Your task to perform on an android device: open app "AliExpress" (install if not already installed) and go to login screen Image 0: 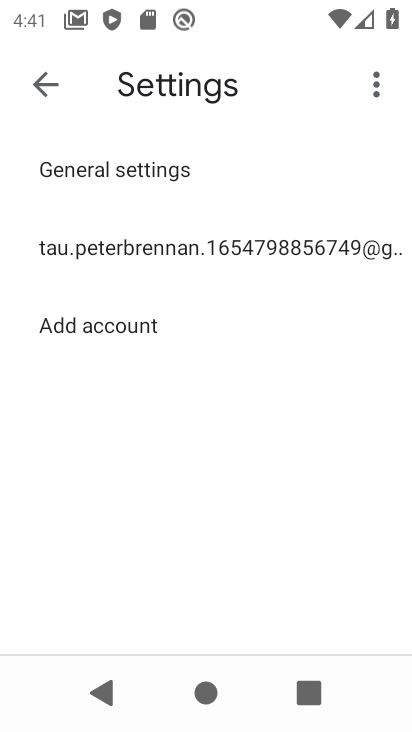
Step 0: press home button
Your task to perform on an android device: open app "AliExpress" (install if not already installed) and go to login screen Image 1: 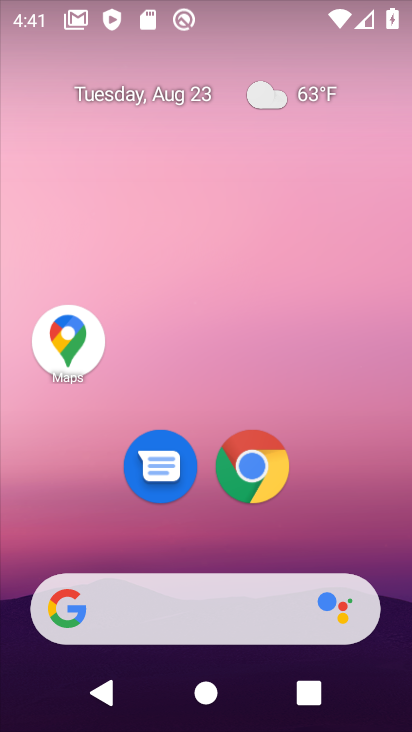
Step 1: drag from (190, 549) to (211, 6)
Your task to perform on an android device: open app "AliExpress" (install if not already installed) and go to login screen Image 2: 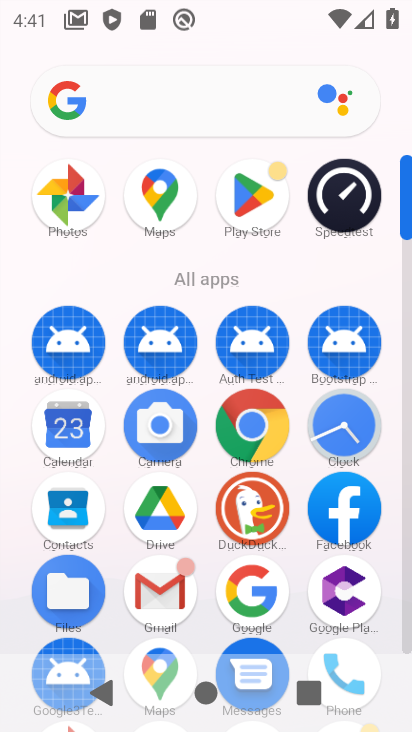
Step 2: click (256, 201)
Your task to perform on an android device: open app "AliExpress" (install if not already installed) and go to login screen Image 3: 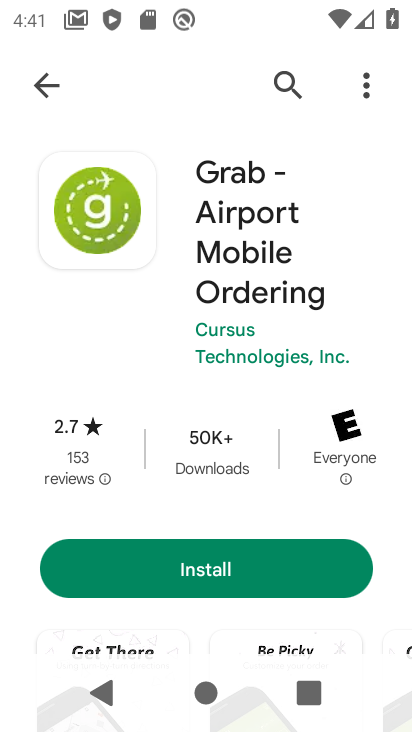
Step 3: click (39, 83)
Your task to perform on an android device: open app "AliExpress" (install if not already installed) and go to login screen Image 4: 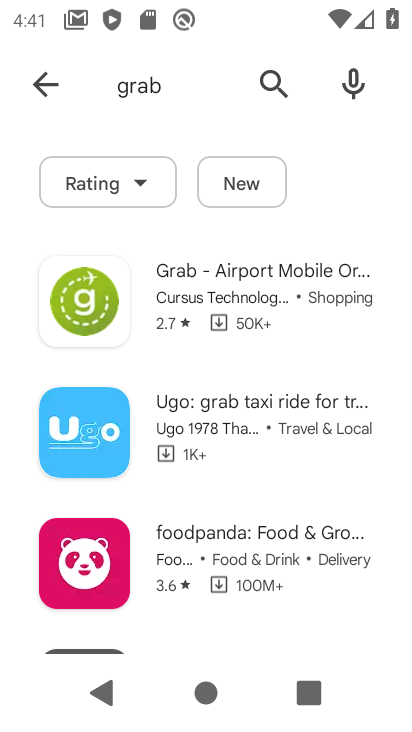
Step 4: click (152, 91)
Your task to perform on an android device: open app "AliExpress" (install if not already installed) and go to login screen Image 5: 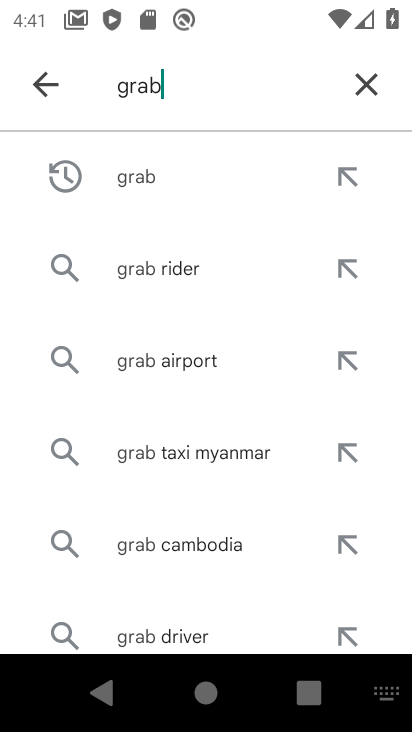
Step 5: click (372, 85)
Your task to perform on an android device: open app "AliExpress" (install if not already installed) and go to login screen Image 6: 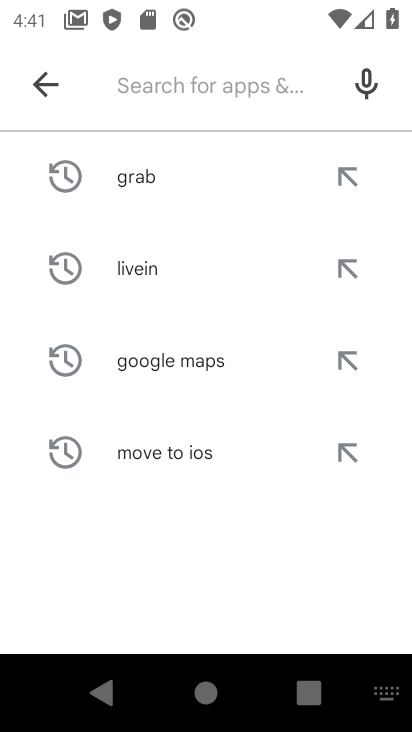
Step 6: type "AliExpress"
Your task to perform on an android device: open app "AliExpress" (install if not already installed) and go to login screen Image 7: 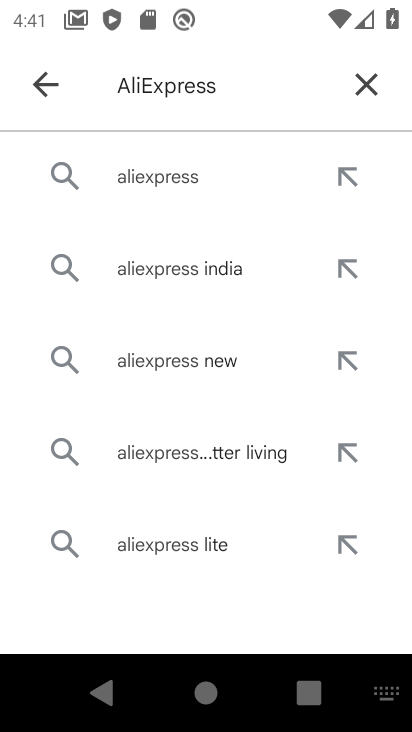
Step 7: click (183, 172)
Your task to perform on an android device: open app "AliExpress" (install if not already installed) and go to login screen Image 8: 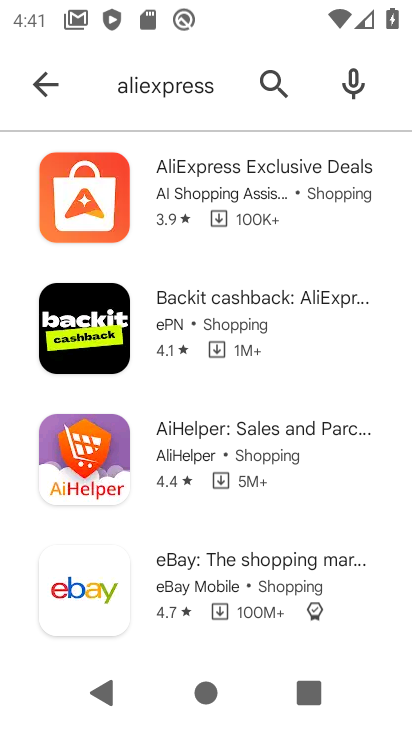
Step 8: click (259, 180)
Your task to perform on an android device: open app "AliExpress" (install if not already installed) and go to login screen Image 9: 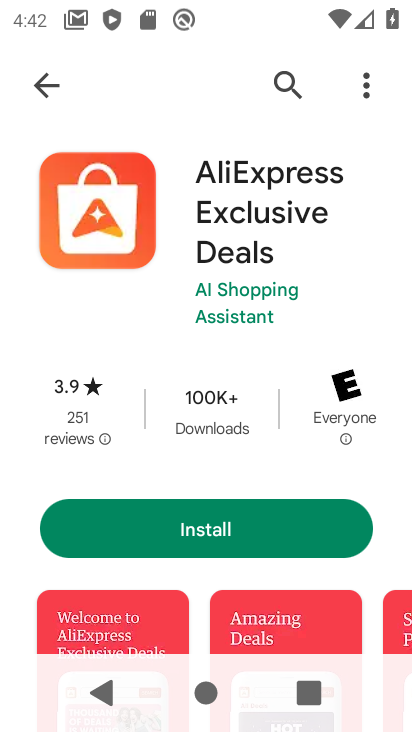
Step 9: click (213, 519)
Your task to perform on an android device: open app "AliExpress" (install if not already installed) and go to login screen Image 10: 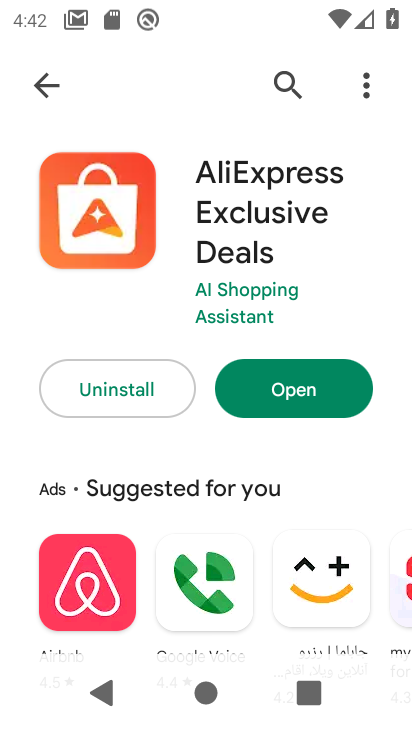
Step 10: click (327, 401)
Your task to perform on an android device: open app "AliExpress" (install if not already installed) and go to login screen Image 11: 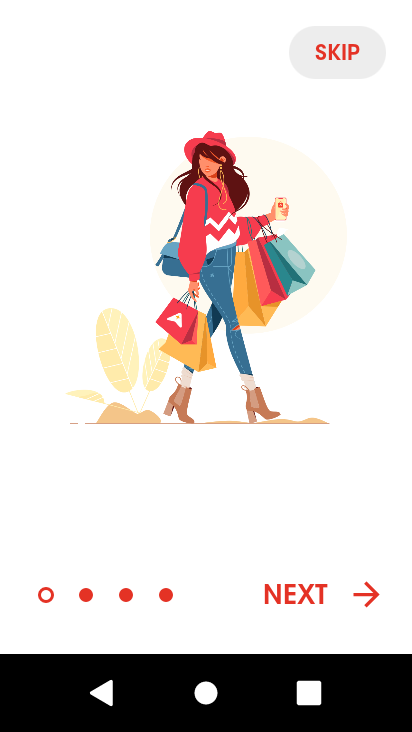
Step 11: click (303, 589)
Your task to perform on an android device: open app "AliExpress" (install if not already installed) and go to login screen Image 12: 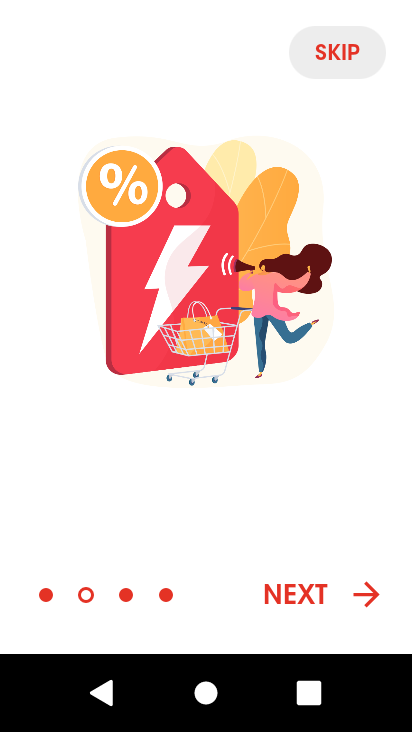
Step 12: click (303, 589)
Your task to perform on an android device: open app "AliExpress" (install if not already installed) and go to login screen Image 13: 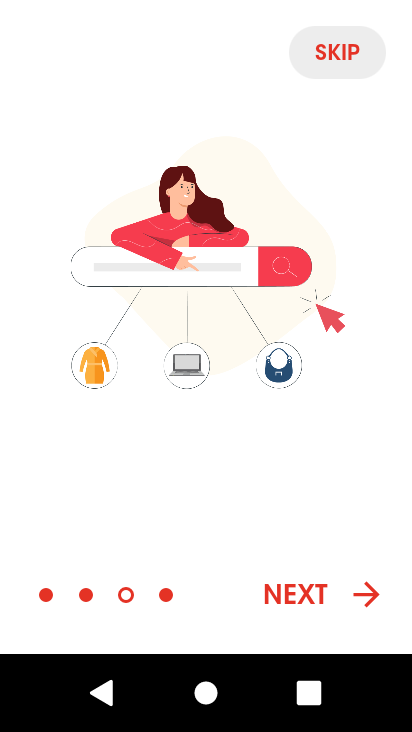
Step 13: click (303, 589)
Your task to perform on an android device: open app "AliExpress" (install if not already installed) and go to login screen Image 14: 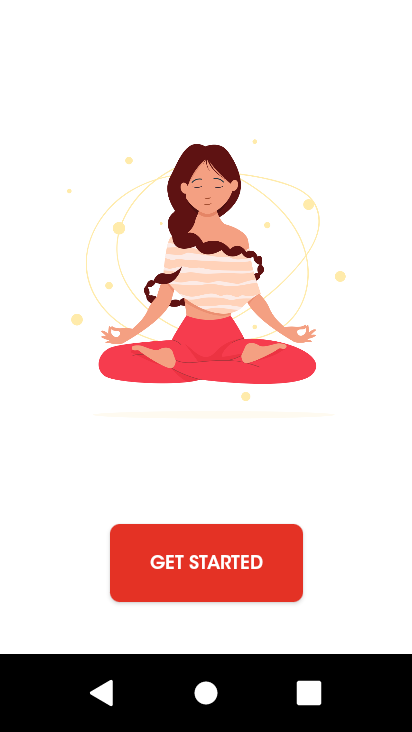
Step 14: click (301, 588)
Your task to perform on an android device: open app "AliExpress" (install if not already installed) and go to login screen Image 15: 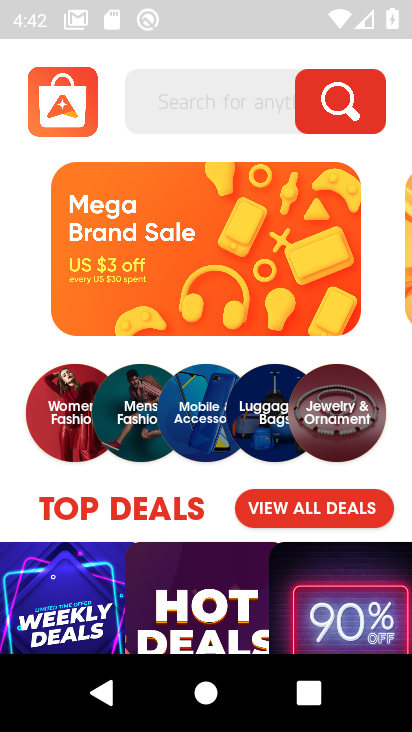
Step 15: click (52, 90)
Your task to perform on an android device: open app "AliExpress" (install if not already installed) and go to login screen Image 16: 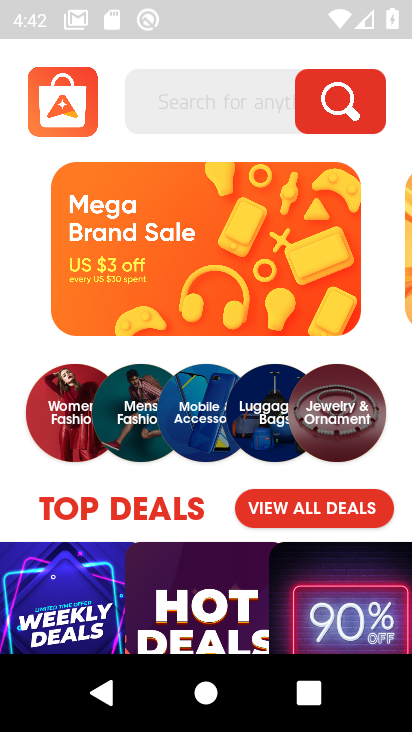
Step 16: click (56, 113)
Your task to perform on an android device: open app "AliExpress" (install if not already installed) and go to login screen Image 17: 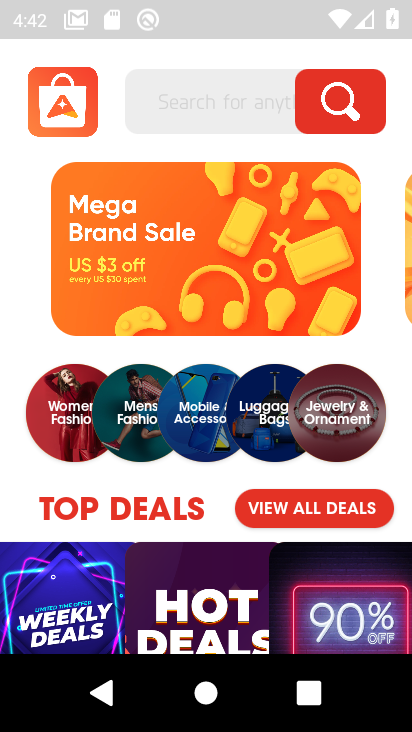
Step 17: click (57, 112)
Your task to perform on an android device: open app "AliExpress" (install if not already installed) and go to login screen Image 18: 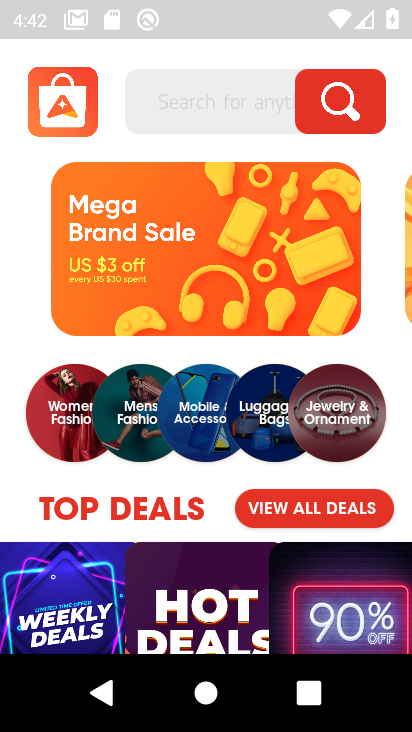
Step 18: click (57, 112)
Your task to perform on an android device: open app "AliExpress" (install if not already installed) and go to login screen Image 19: 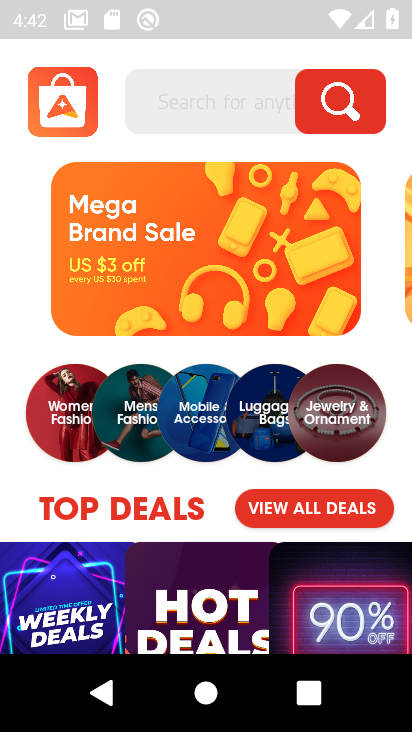
Step 19: click (66, 89)
Your task to perform on an android device: open app "AliExpress" (install if not already installed) and go to login screen Image 20: 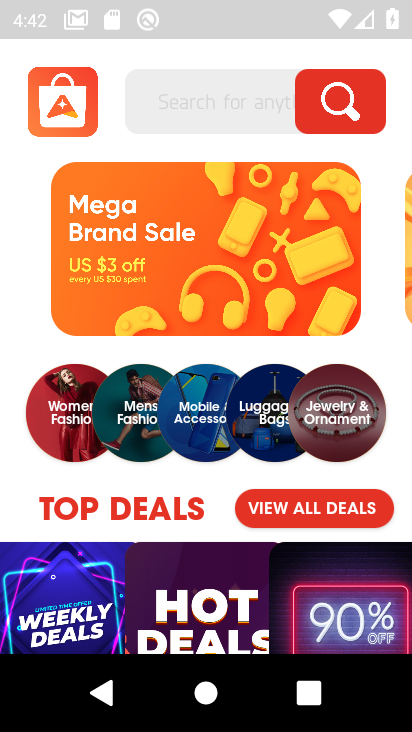
Step 20: task complete